Your task to perform on an android device: change keyboard looks Image 0: 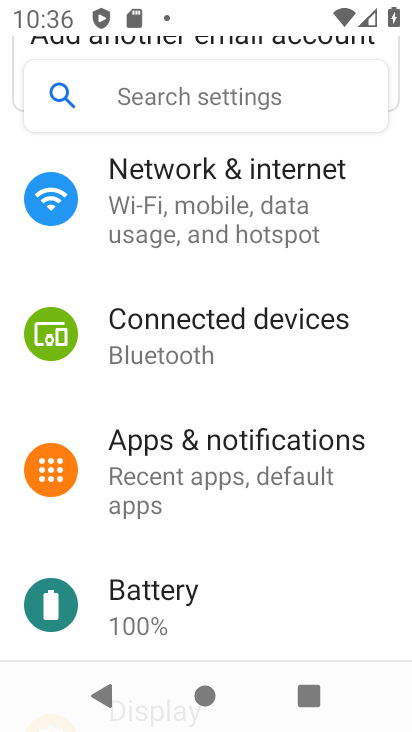
Step 0: drag from (259, 541) to (289, 118)
Your task to perform on an android device: change keyboard looks Image 1: 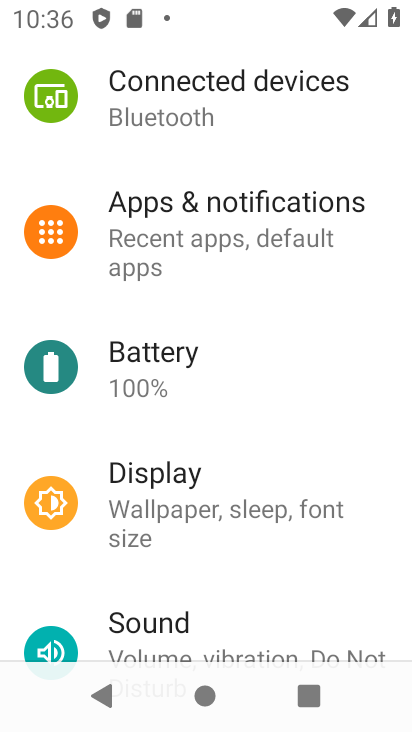
Step 1: drag from (248, 610) to (267, 159)
Your task to perform on an android device: change keyboard looks Image 2: 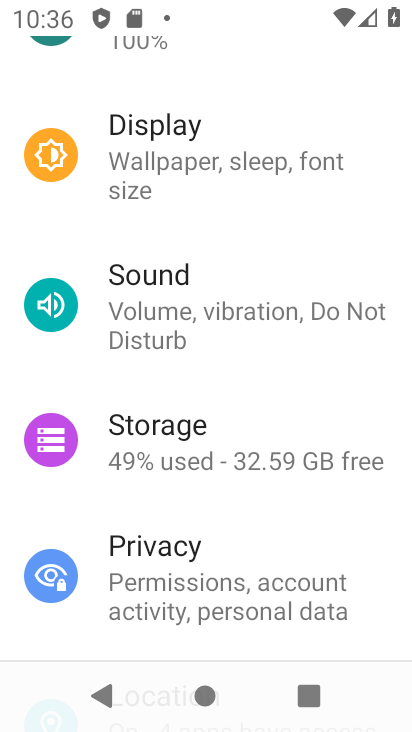
Step 2: drag from (275, 530) to (297, 159)
Your task to perform on an android device: change keyboard looks Image 3: 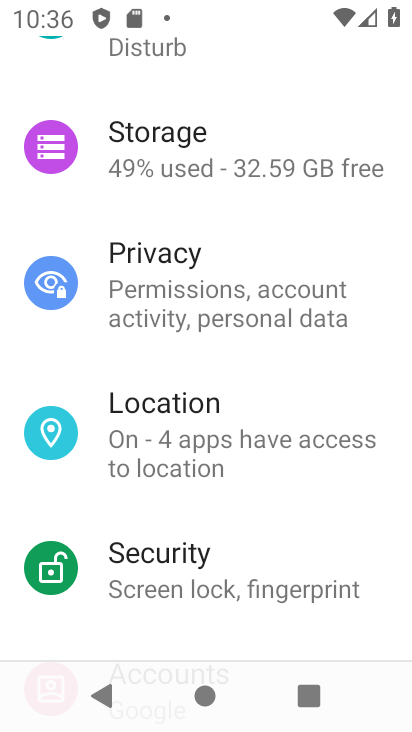
Step 3: drag from (239, 552) to (255, 104)
Your task to perform on an android device: change keyboard looks Image 4: 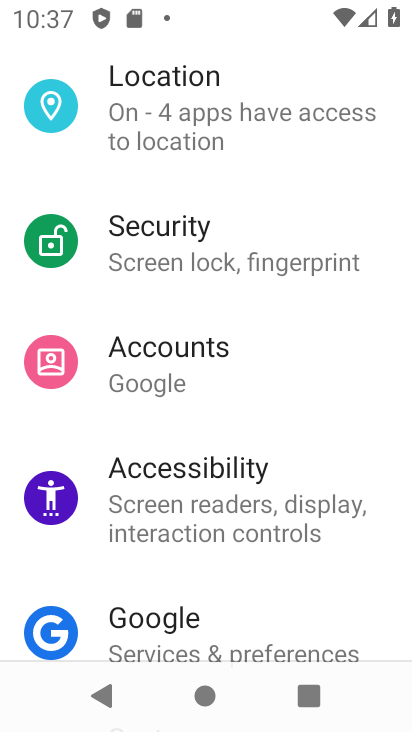
Step 4: drag from (192, 545) to (186, 71)
Your task to perform on an android device: change keyboard looks Image 5: 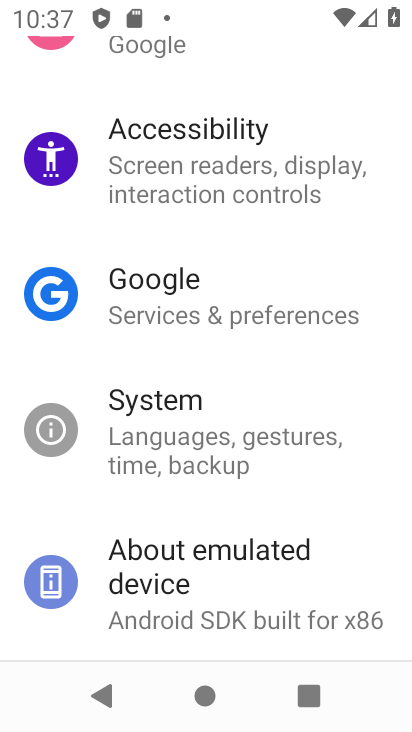
Step 5: click (270, 446)
Your task to perform on an android device: change keyboard looks Image 6: 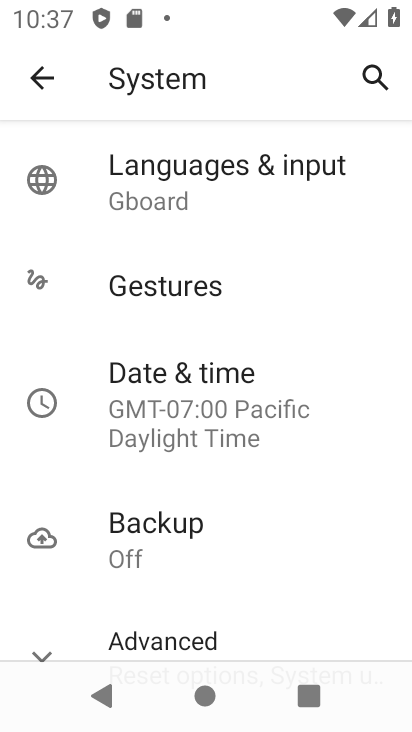
Step 6: click (233, 182)
Your task to perform on an android device: change keyboard looks Image 7: 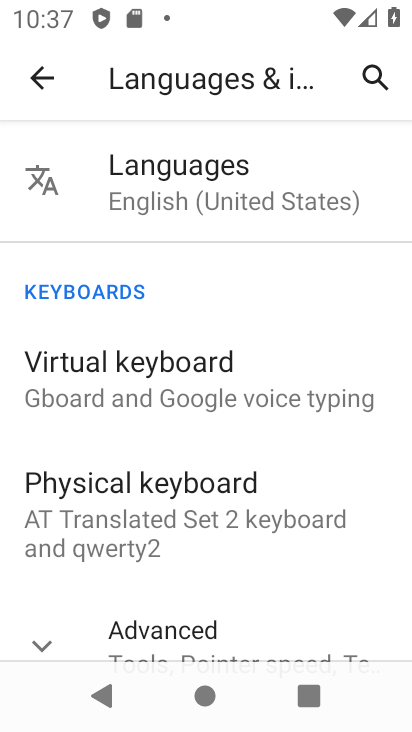
Step 7: drag from (253, 526) to (300, 42)
Your task to perform on an android device: change keyboard looks Image 8: 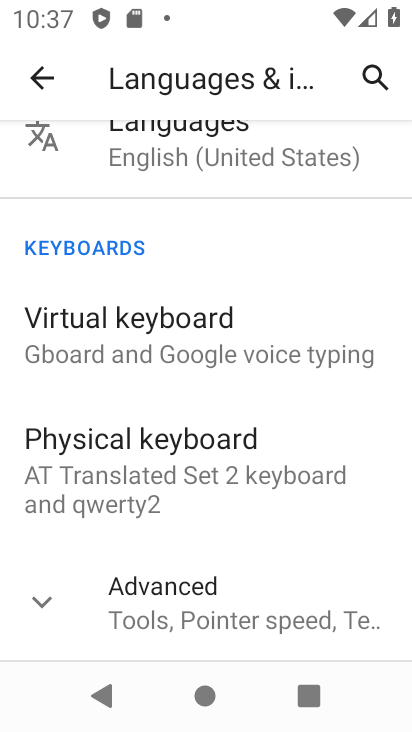
Step 8: click (354, 354)
Your task to perform on an android device: change keyboard looks Image 9: 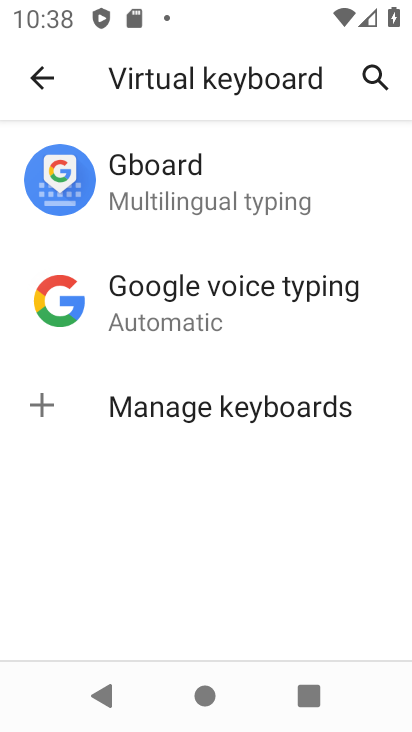
Step 9: click (251, 193)
Your task to perform on an android device: change keyboard looks Image 10: 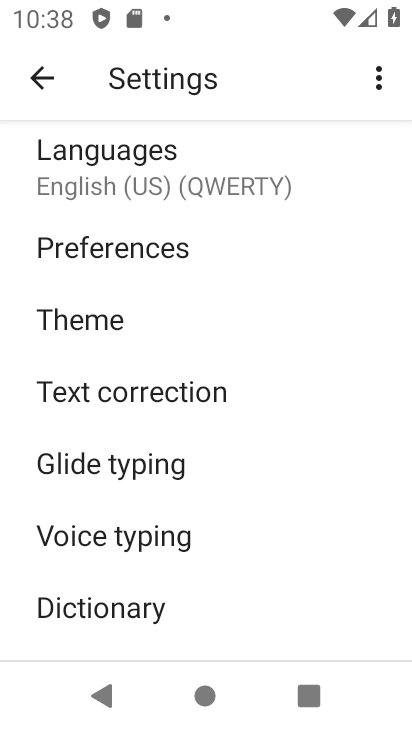
Step 10: click (129, 324)
Your task to perform on an android device: change keyboard looks Image 11: 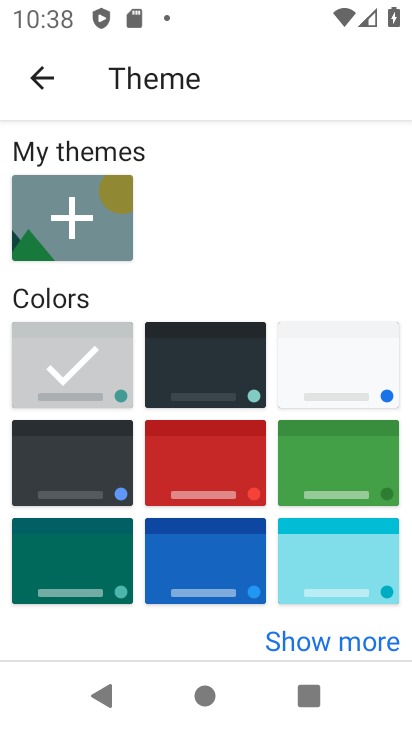
Step 11: click (217, 558)
Your task to perform on an android device: change keyboard looks Image 12: 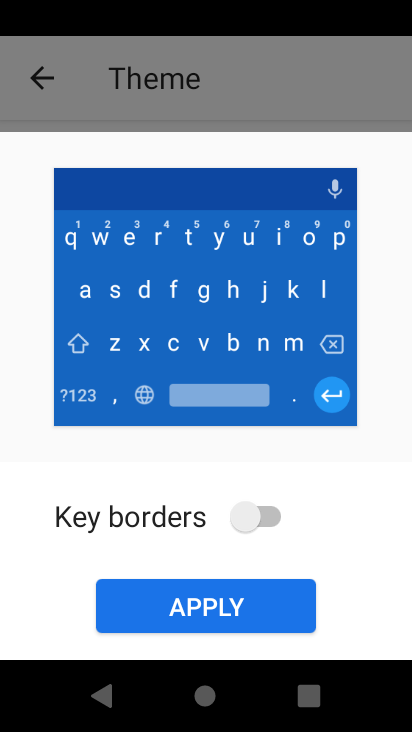
Step 12: click (226, 614)
Your task to perform on an android device: change keyboard looks Image 13: 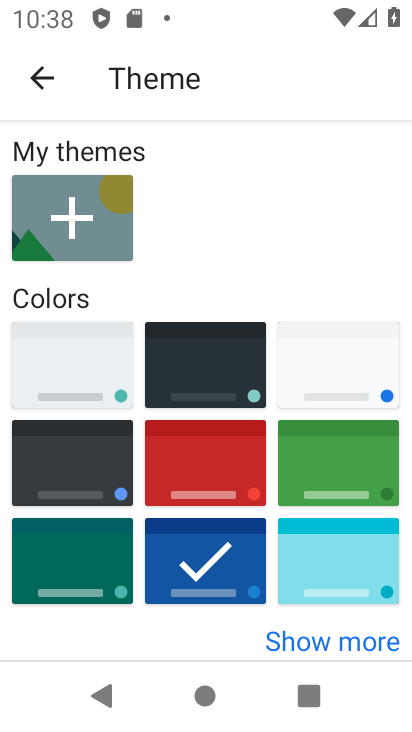
Step 13: task complete